Your task to perform on an android device: Open Google Chrome Image 0: 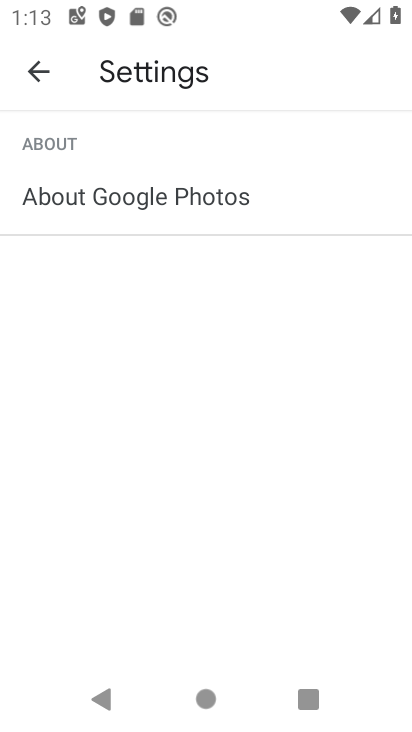
Step 0: press home button
Your task to perform on an android device: Open Google Chrome Image 1: 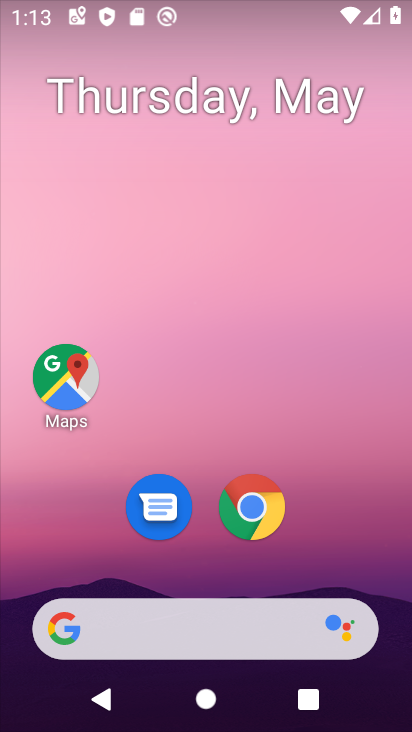
Step 1: drag from (287, 632) to (348, 142)
Your task to perform on an android device: Open Google Chrome Image 2: 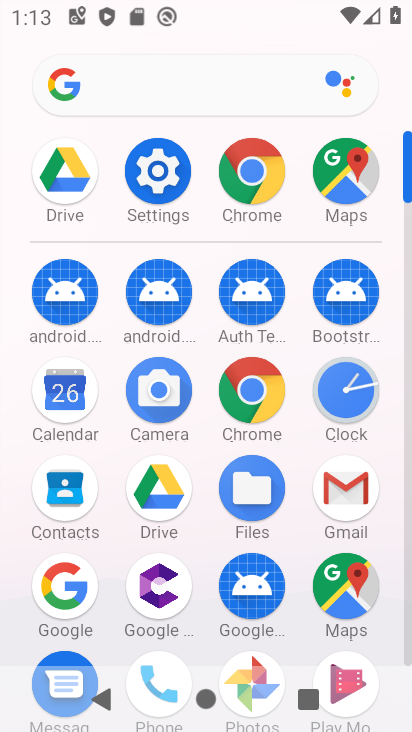
Step 2: click (261, 404)
Your task to perform on an android device: Open Google Chrome Image 3: 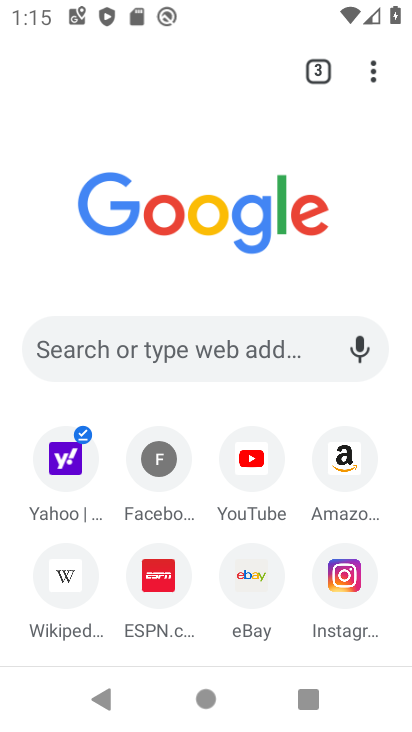
Step 3: task complete